Your task to perform on an android device: toggle notification dots Image 0: 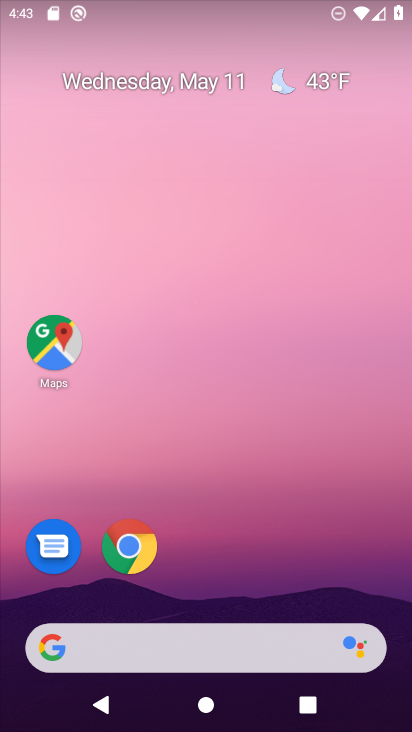
Step 0: drag from (245, 628) to (227, 310)
Your task to perform on an android device: toggle notification dots Image 1: 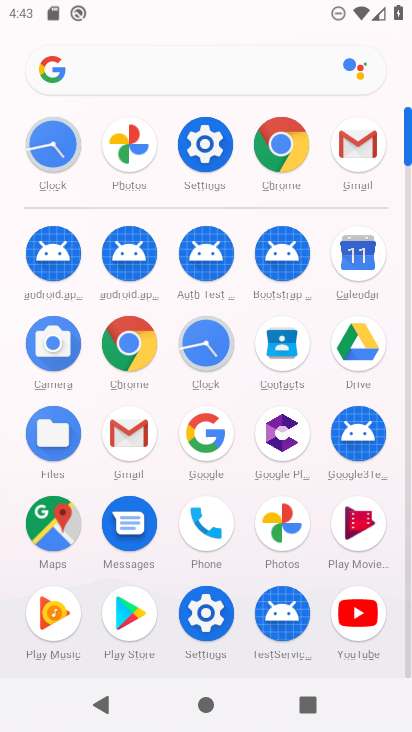
Step 1: click (215, 605)
Your task to perform on an android device: toggle notification dots Image 2: 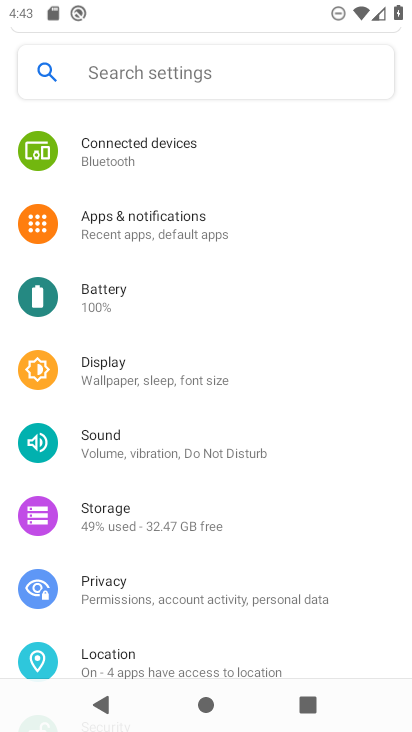
Step 2: click (160, 231)
Your task to perform on an android device: toggle notification dots Image 3: 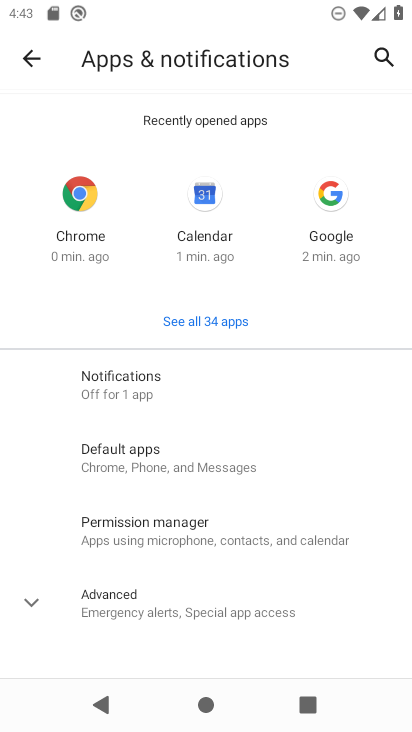
Step 3: click (125, 385)
Your task to perform on an android device: toggle notification dots Image 4: 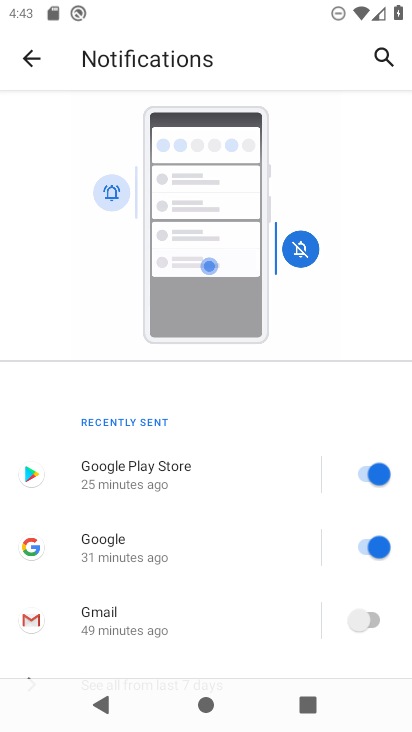
Step 4: drag from (169, 607) to (142, 295)
Your task to perform on an android device: toggle notification dots Image 5: 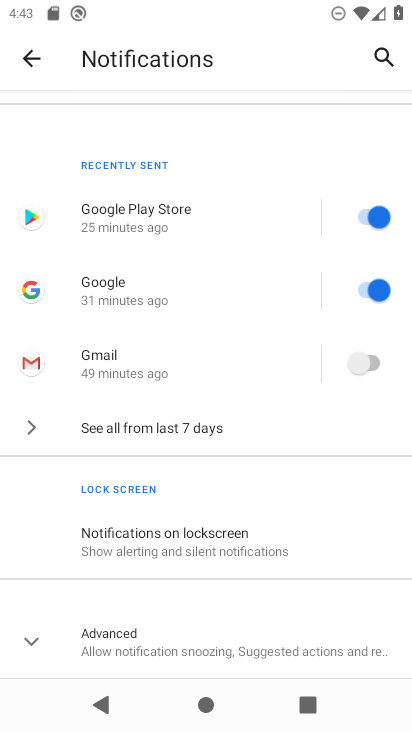
Step 5: click (135, 639)
Your task to perform on an android device: toggle notification dots Image 6: 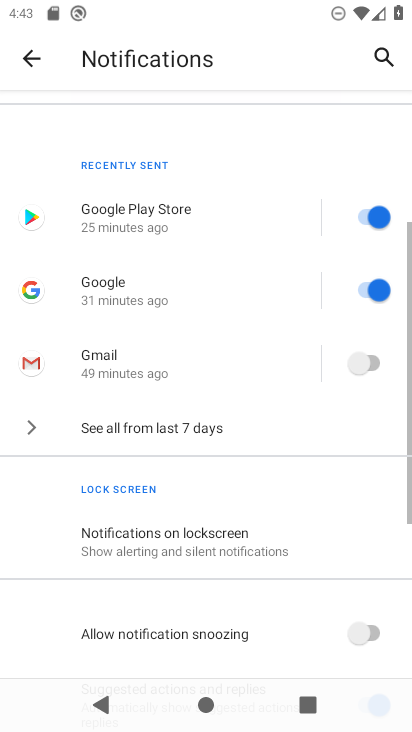
Step 6: drag from (235, 638) to (193, 309)
Your task to perform on an android device: toggle notification dots Image 7: 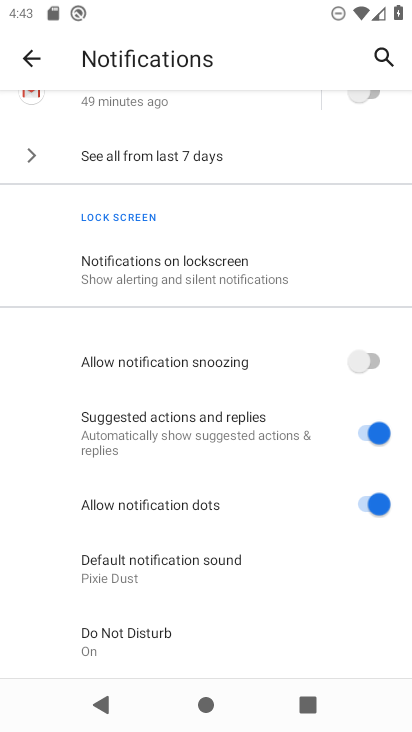
Step 7: click (361, 502)
Your task to perform on an android device: toggle notification dots Image 8: 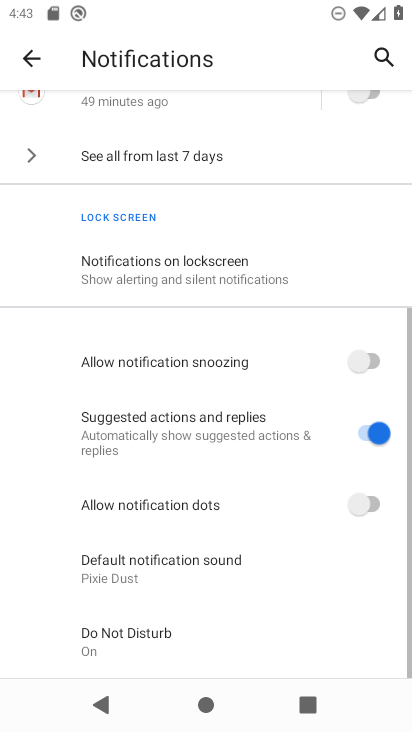
Step 8: task complete